Your task to perform on an android device: What's on my calendar tomorrow? Image 0: 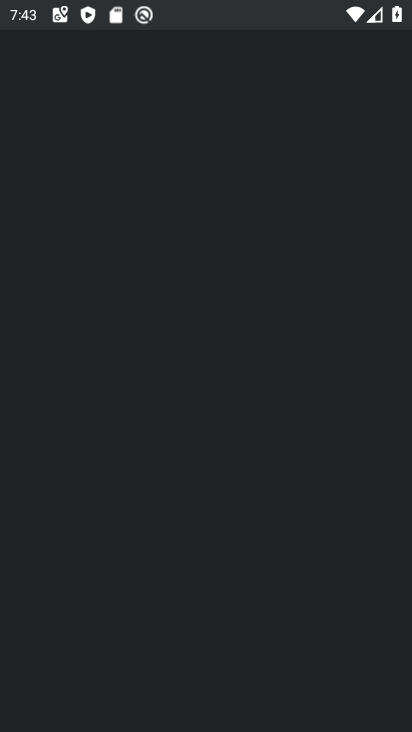
Step 0: drag from (212, 667) to (259, 556)
Your task to perform on an android device: What's on my calendar tomorrow? Image 1: 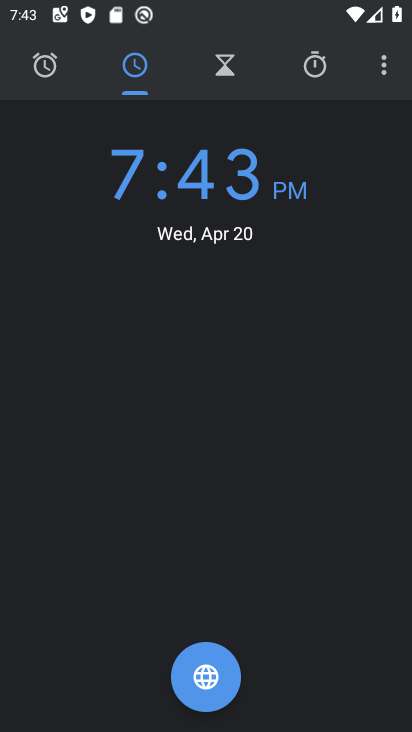
Step 1: press home button
Your task to perform on an android device: What's on my calendar tomorrow? Image 2: 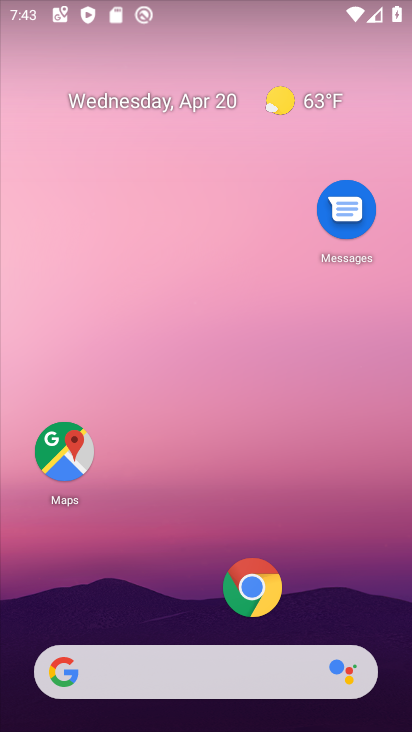
Step 2: drag from (192, 673) to (299, 145)
Your task to perform on an android device: What's on my calendar tomorrow? Image 3: 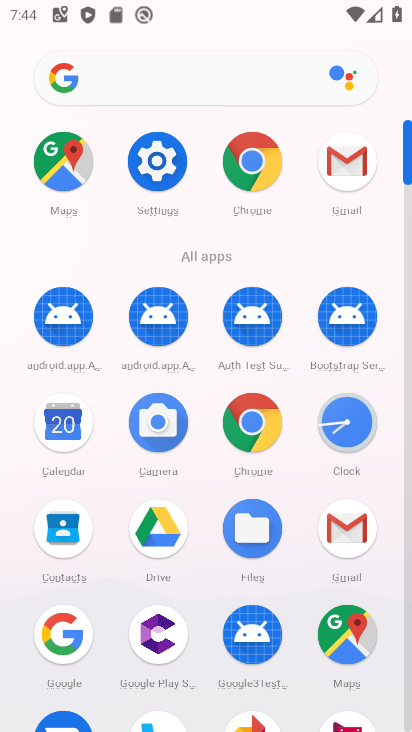
Step 3: click (70, 424)
Your task to perform on an android device: What's on my calendar tomorrow? Image 4: 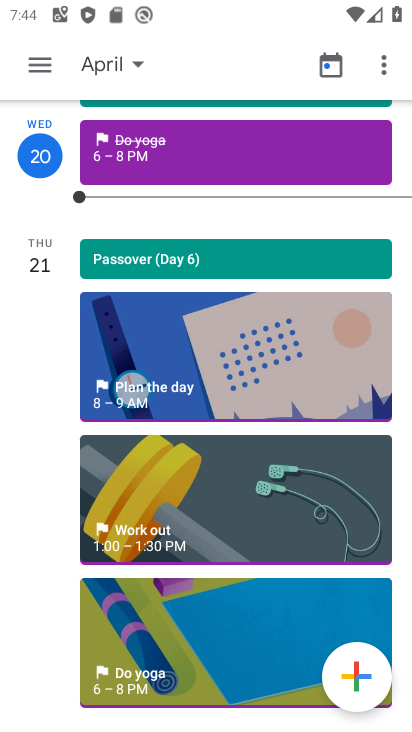
Step 4: click (101, 63)
Your task to perform on an android device: What's on my calendar tomorrow? Image 5: 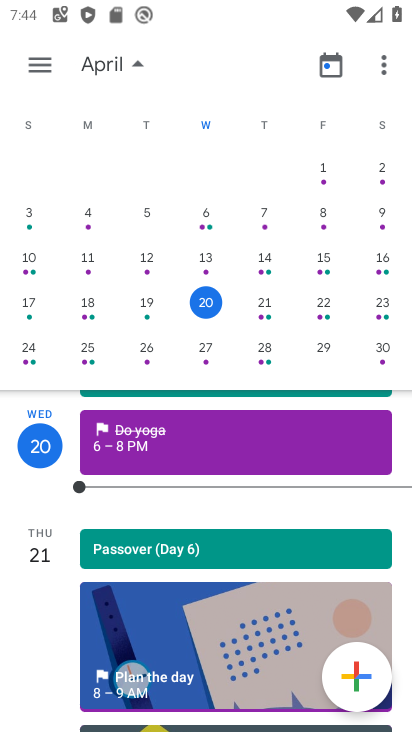
Step 5: click (264, 301)
Your task to perform on an android device: What's on my calendar tomorrow? Image 6: 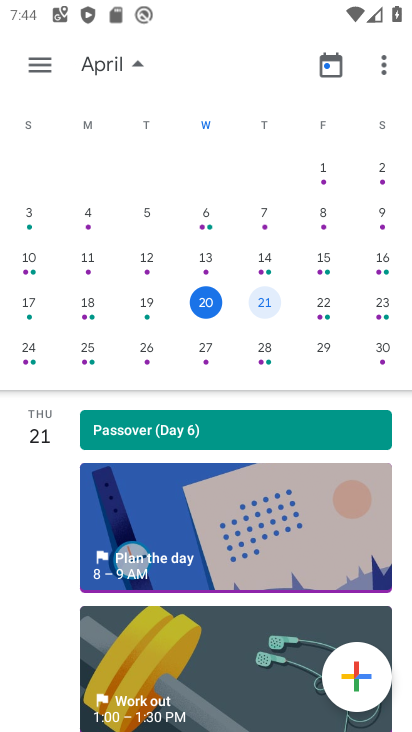
Step 6: click (39, 61)
Your task to perform on an android device: What's on my calendar tomorrow? Image 7: 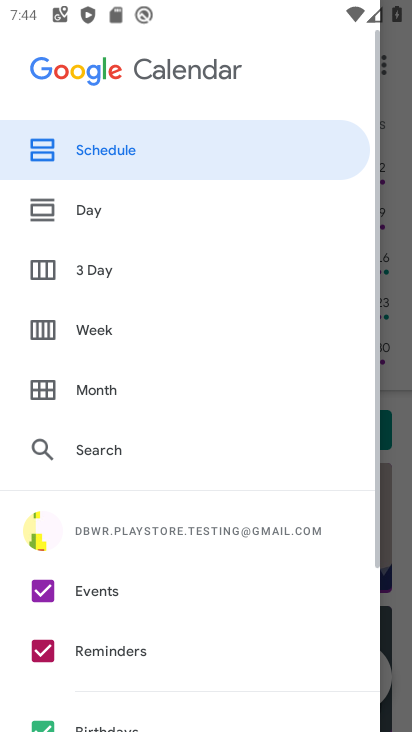
Step 7: click (96, 153)
Your task to perform on an android device: What's on my calendar tomorrow? Image 8: 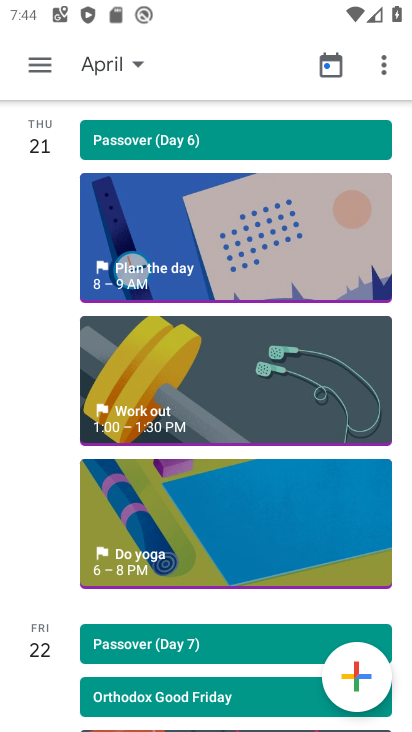
Step 8: task complete